Your task to perform on an android device: Search for vegetarian restaurants on Maps Image 0: 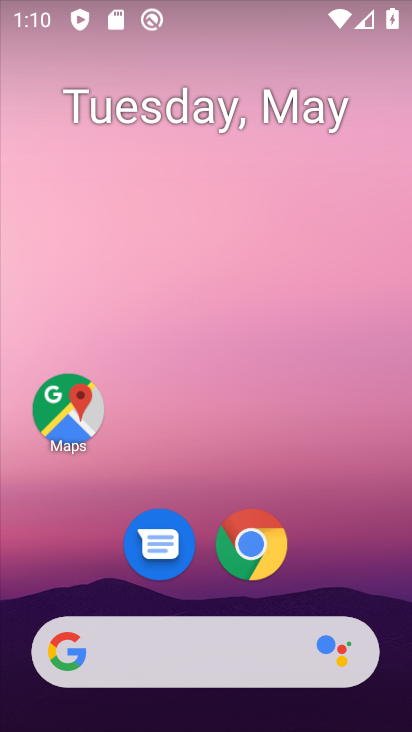
Step 0: click (66, 433)
Your task to perform on an android device: Search for vegetarian restaurants on Maps Image 1: 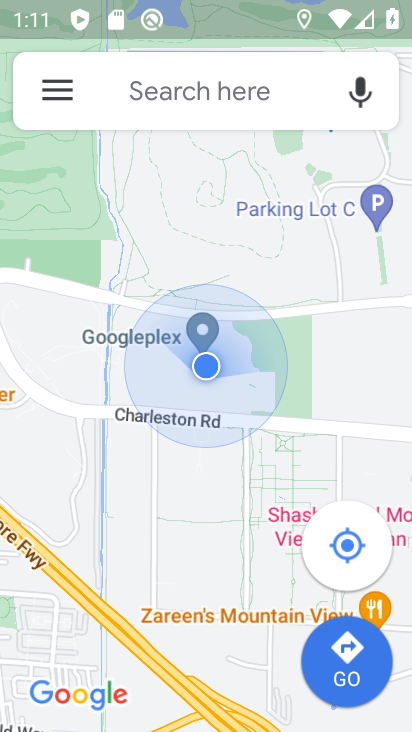
Step 1: click (250, 79)
Your task to perform on an android device: Search for vegetarian restaurants on Maps Image 2: 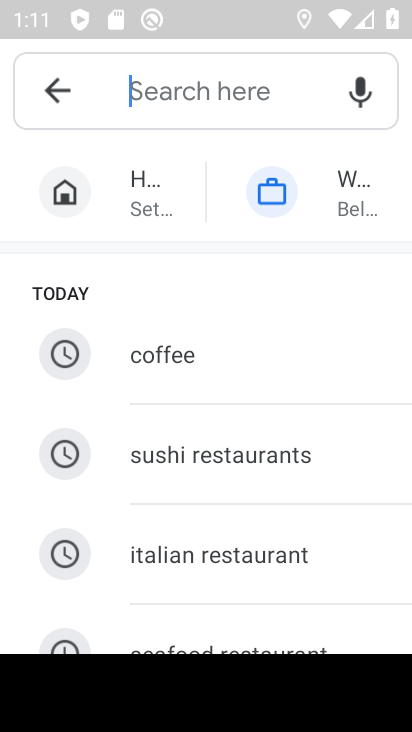
Step 2: type "vegetarian restaurants"
Your task to perform on an android device: Search for vegetarian restaurants on Maps Image 3: 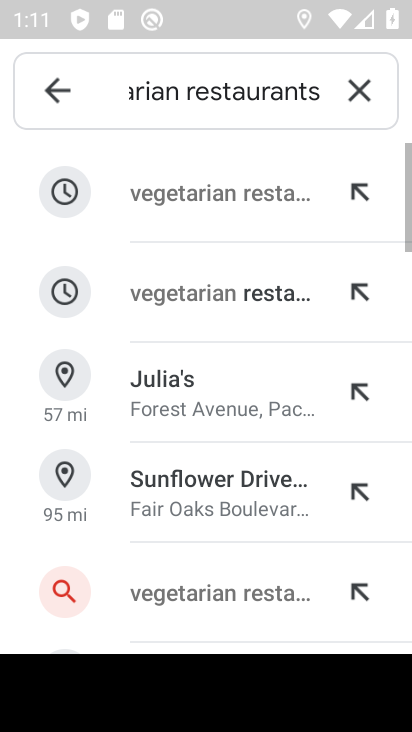
Step 3: click (228, 205)
Your task to perform on an android device: Search for vegetarian restaurants on Maps Image 4: 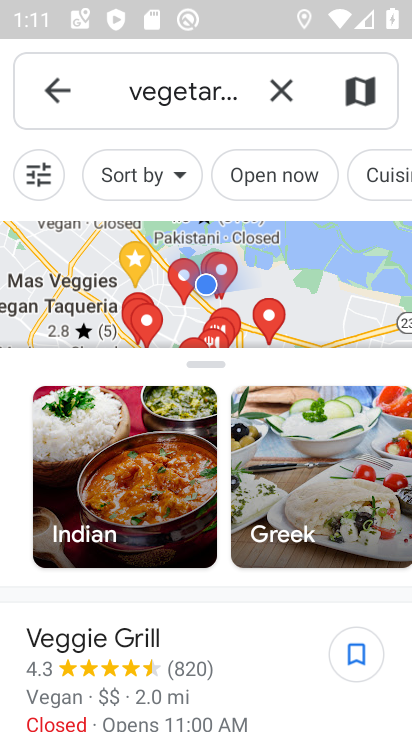
Step 4: task complete